Your task to perform on an android device: Open the calendar app, open the side menu, and click the "Day" option Image 0: 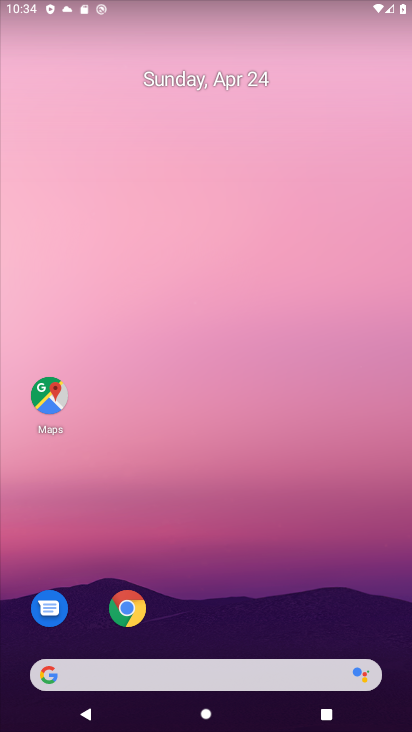
Step 0: drag from (283, 608) to (170, 1)
Your task to perform on an android device: Open the calendar app, open the side menu, and click the "Day" option Image 1: 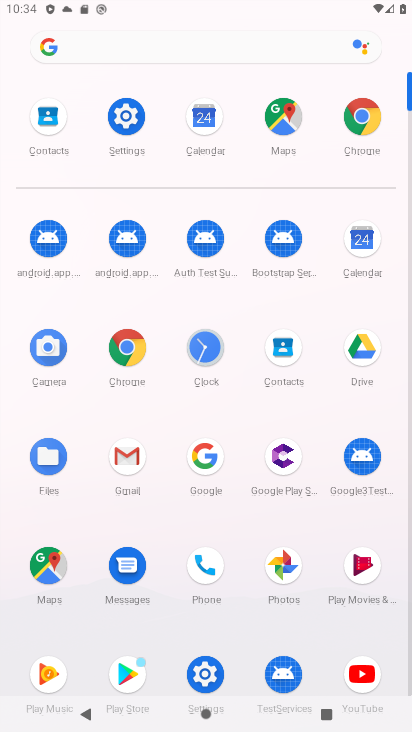
Step 1: click (359, 237)
Your task to perform on an android device: Open the calendar app, open the side menu, and click the "Day" option Image 2: 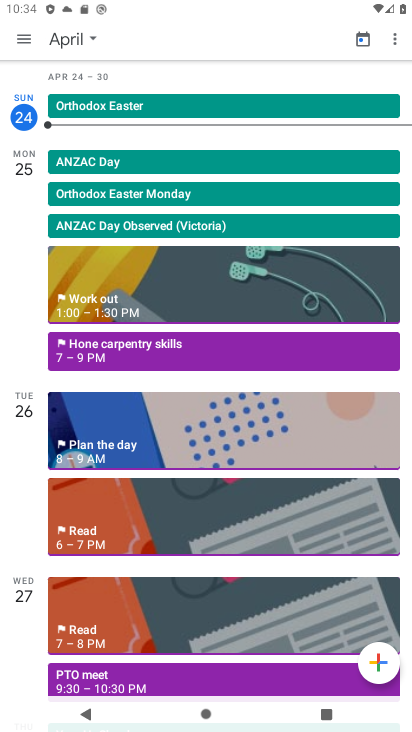
Step 2: click (30, 46)
Your task to perform on an android device: Open the calendar app, open the side menu, and click the "Day" option Image 3: 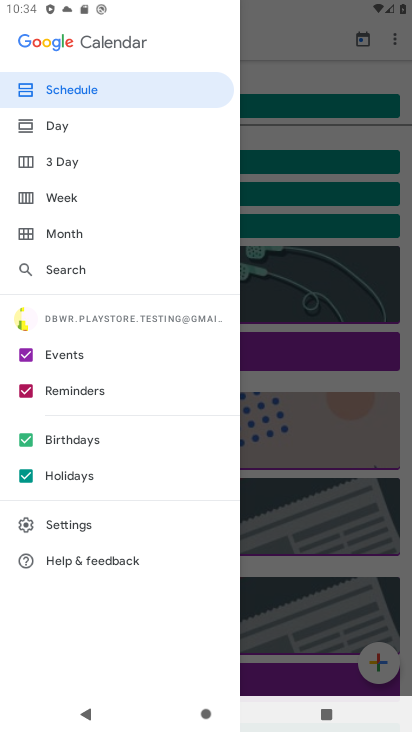
Step 3: click (68, 133)
Your task to perform on an android device: Open the calendar app, open the side menu, and click the "Day" option Image 4: 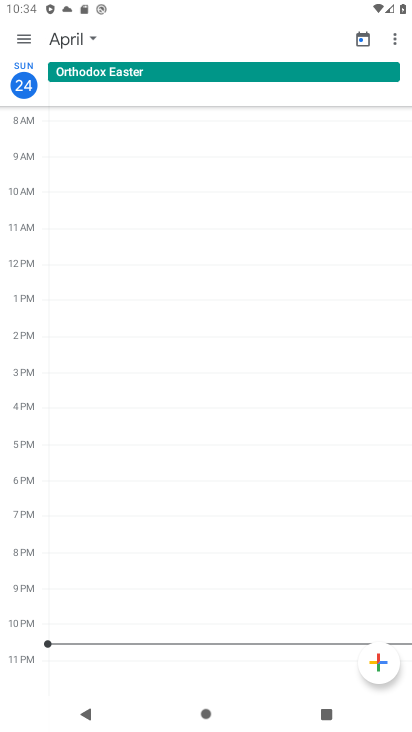
Step 4: task complete